Your task to perform on an android device: check data usage Image 0: 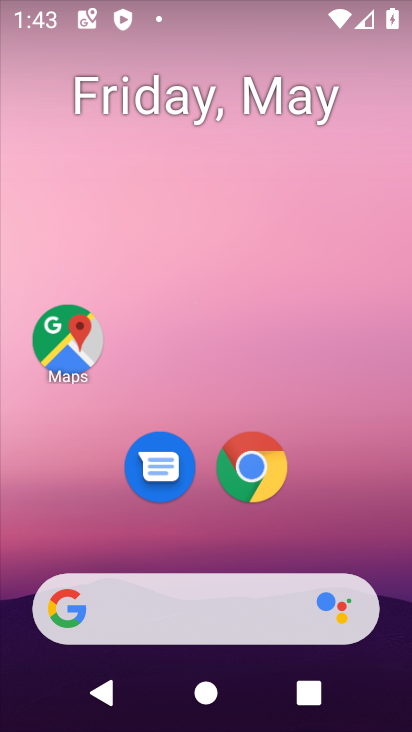
Step 0: drag from (332, 541) to (286, 113)
Your task to perform on an android device: check data usage Image 1: 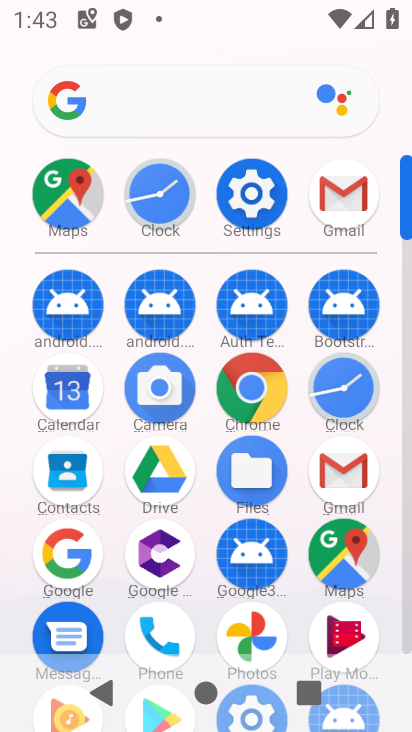
Step 1: click (248, 196)
Your task to perform on an android device: check data usage Image 2: 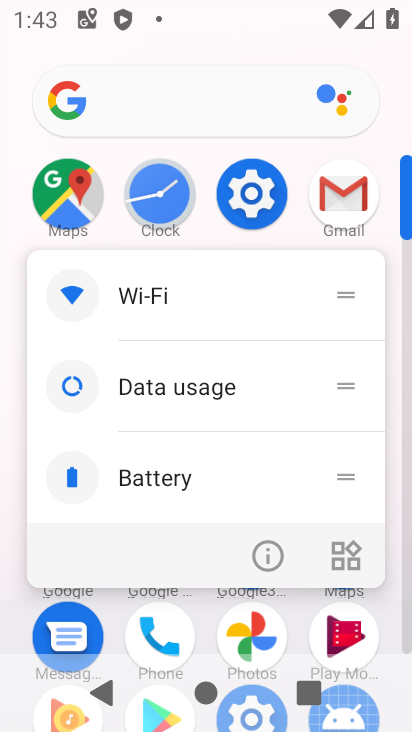
Step 2: click (159, 390)
Your task to perform on an android device: check data usage Image 3: 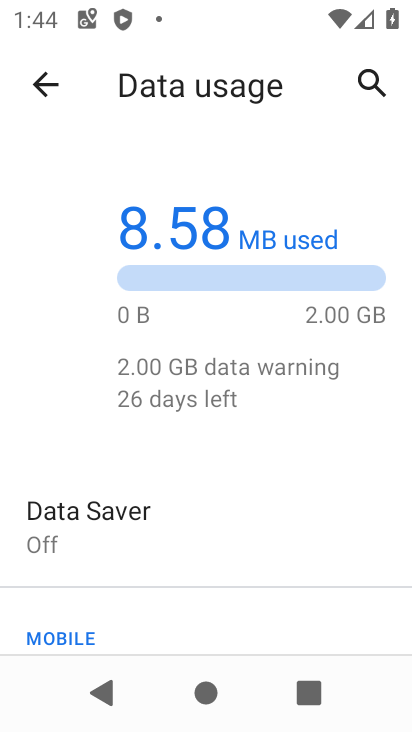
Step 3: task complete